Your task to perform on an android device: change the clock style Image 0: 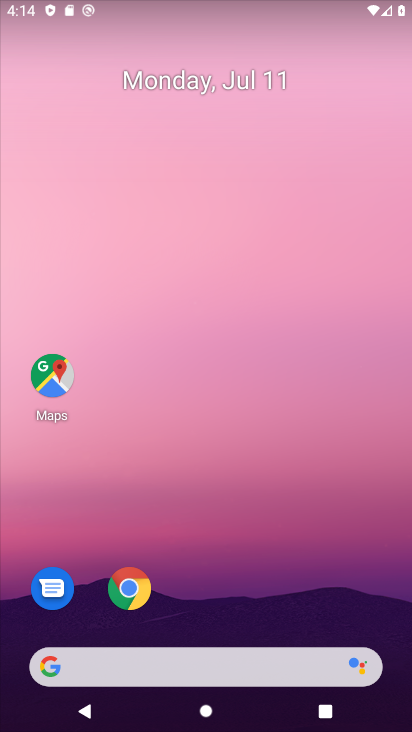
Step 0: drag from (258, 674) to (200, 97)
Your task to perform on an android device: change the clock style Image 1: 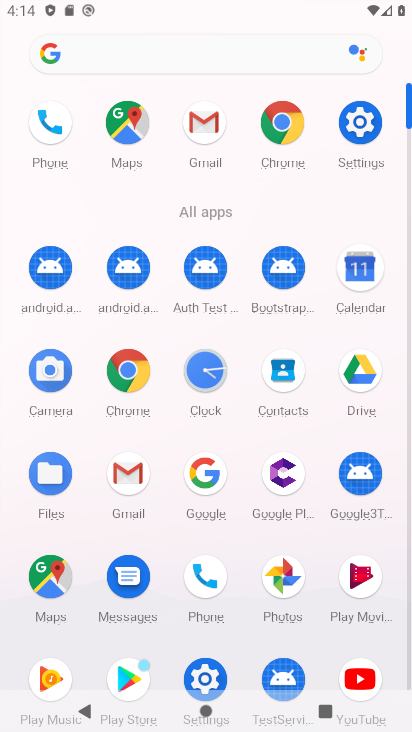
Step 1: click (197, 372)
Your task to perform on an android device: change the clock style Image 2: 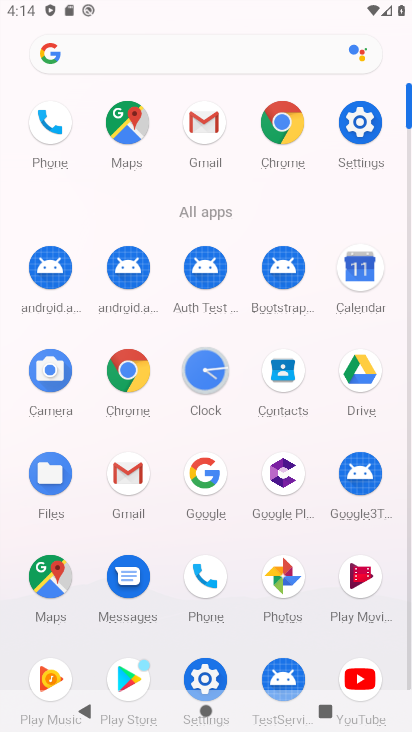
Step 2: click (198, 367)
Your task to perform on an android device: change the clock style Image 3: 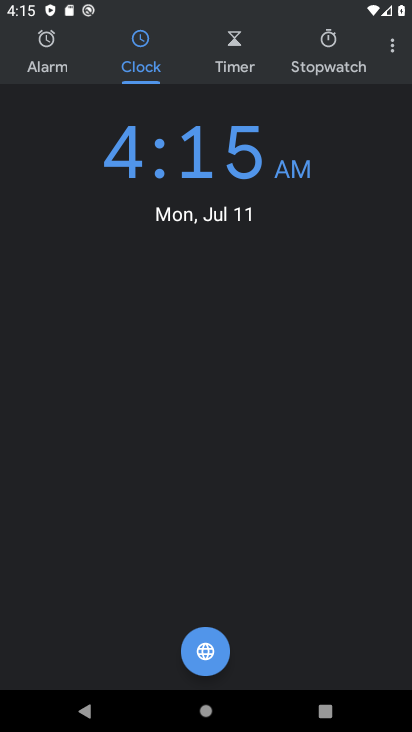
Step 3: click (399, 45)
Your task to perform on an android device: change the clock style Image 4: 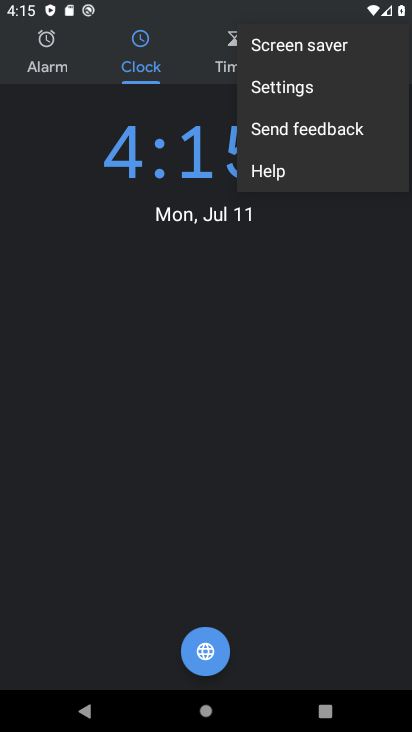
Step 4: click (394, 52)
Your task to perform on an android device: change the clock style Image 5: 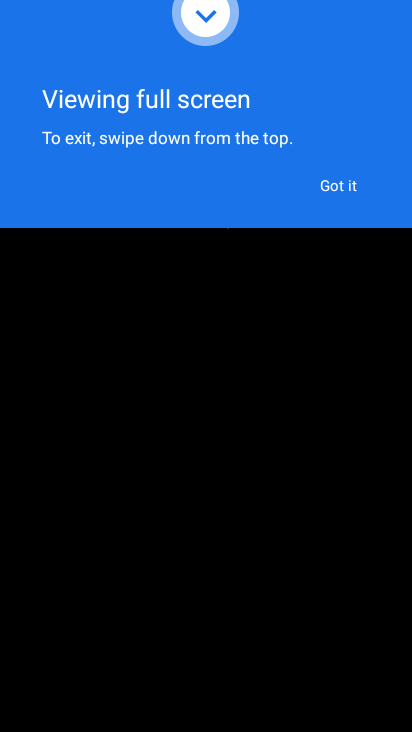
Step 5: click (335, 181)
Your task to perform on an android device: change the clock style Image 6: 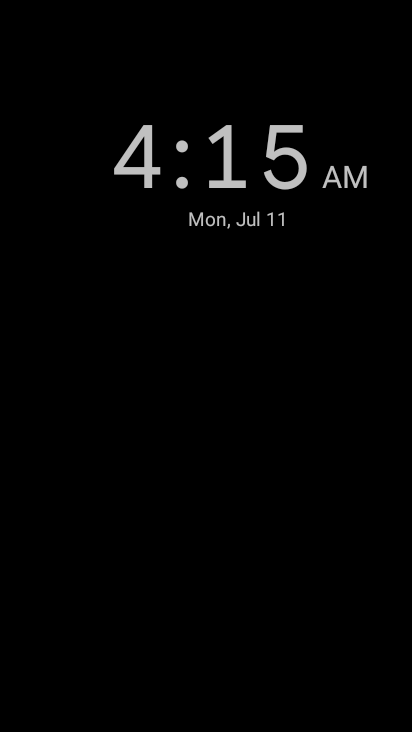
Step 6: press back button
Your task to perform on an android device: change the clock style Image 7: 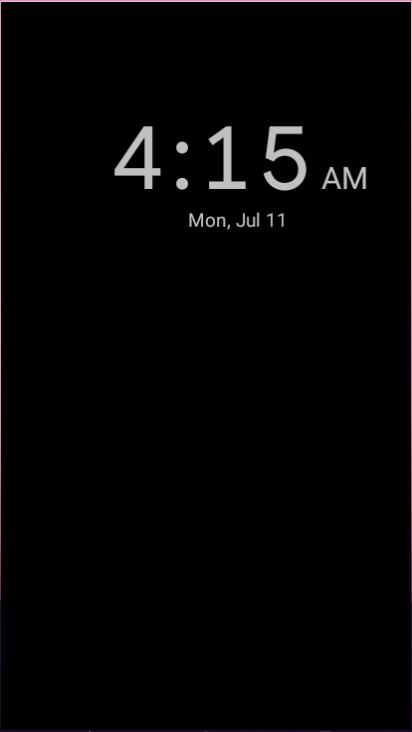
Step 7: press back button
Your task to perform on an android device: change the clock style Image 8: 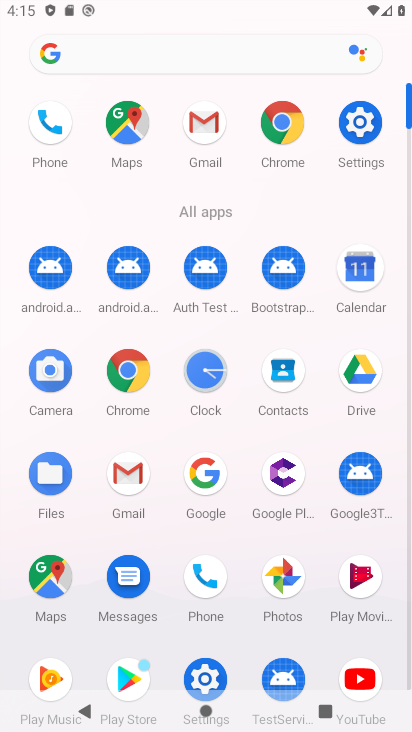
Step 8: click (205, 380)
Your task to perform on an android device: change the clock style Image 9: 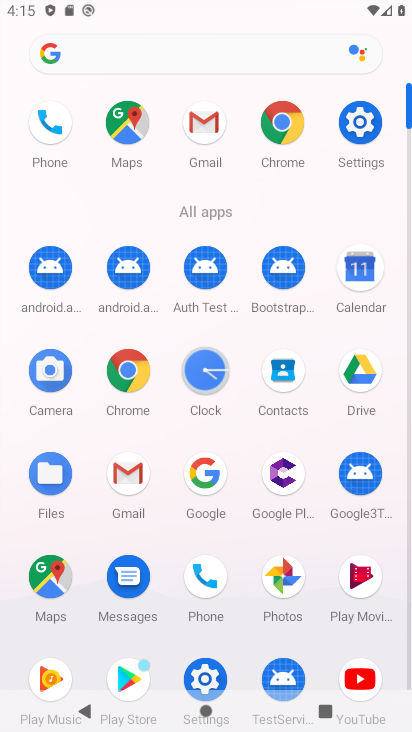
Step 9: click (205, 380)
Your task to perform on an android device: change the clock style Image 10: 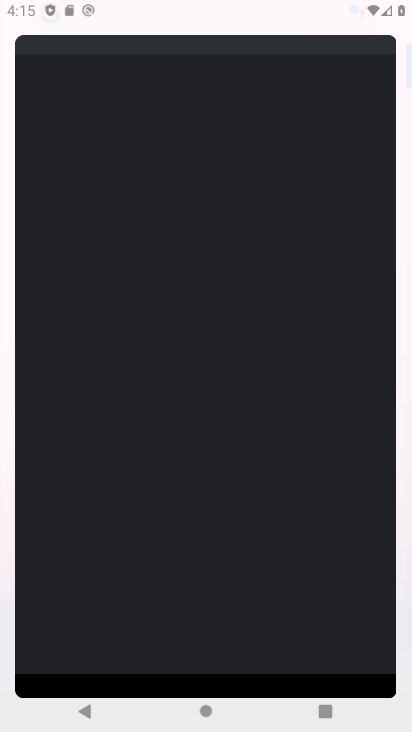
Step 10: click (207, 379)
Your task to perform on an android device: change the clock style Image 11: 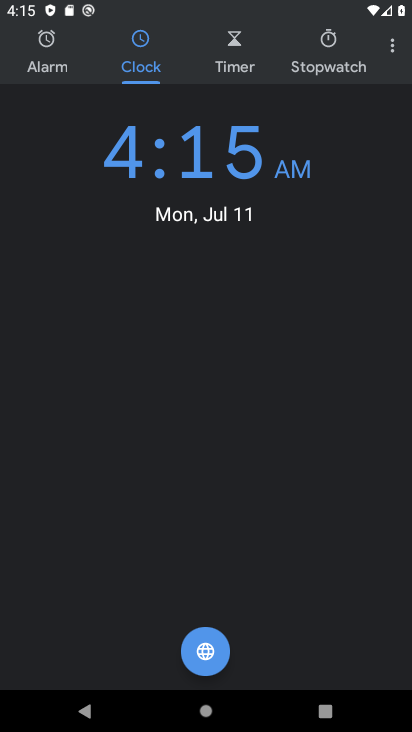
Step 11: click (390, 42)
Your task to perform on an android device: change the clock style Image 12: 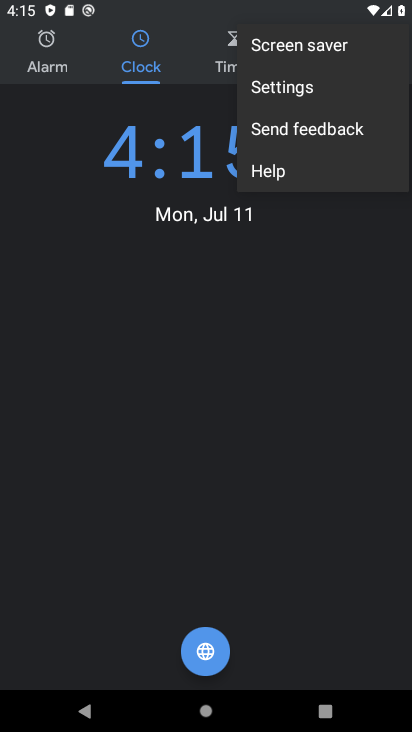
Step 12: click (300, 86)
Your task to perform on an android device: change the clock style Image 13: 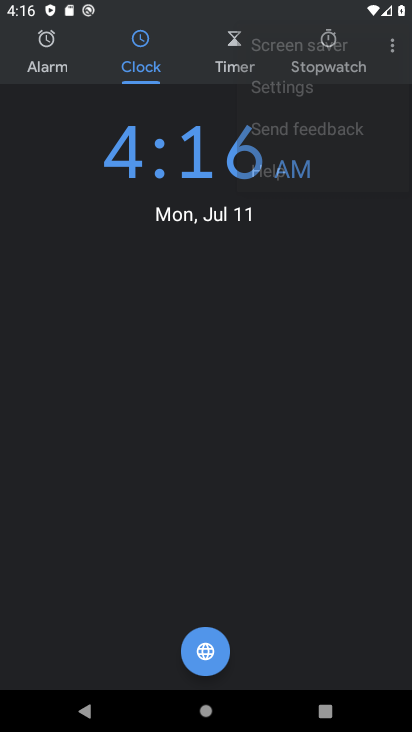
Step 13: click (300, 88)
Your task to perform on an android device: change the clock style Image 14: 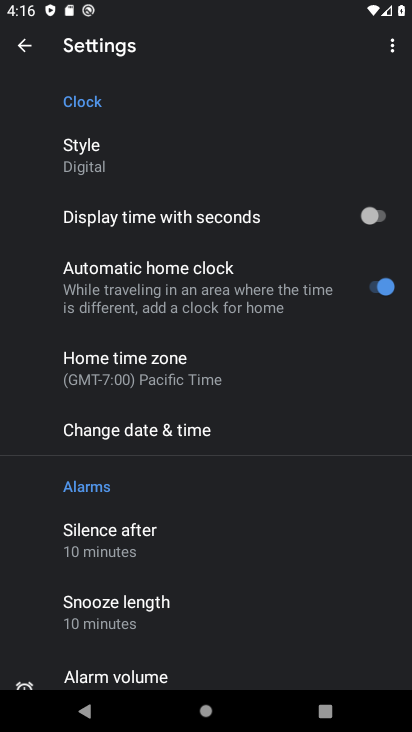
Step 14: click (122, 166)
Your task to perform on an android device: change the clock style Image 15: 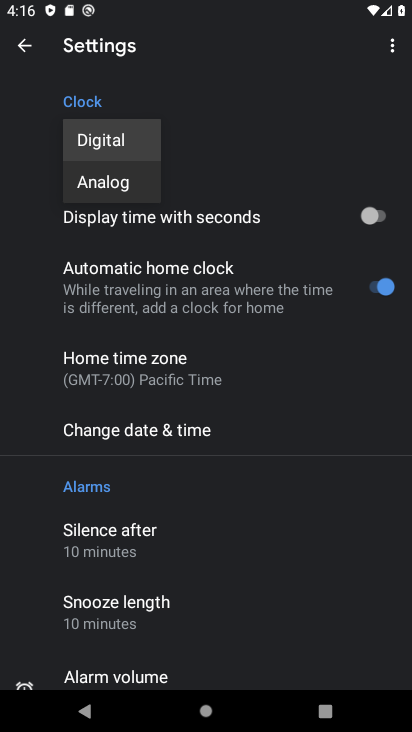
Step 15: click (117, 182)
Your task to perform on an android device: change the clock style Image 16: 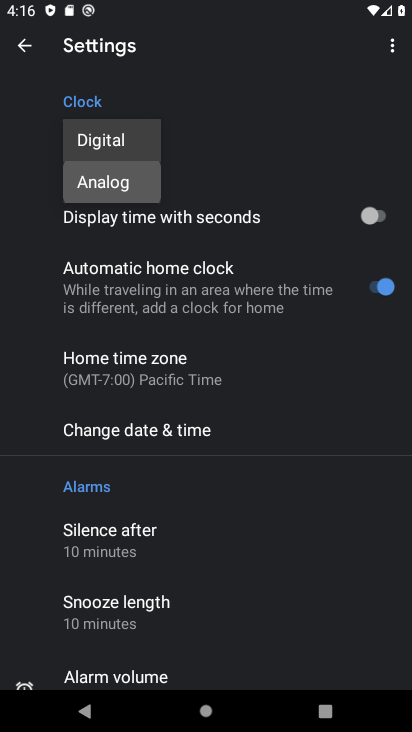
Step 16: click (117, 182)
Your task to perform on an android device: change the clock style Image 17: 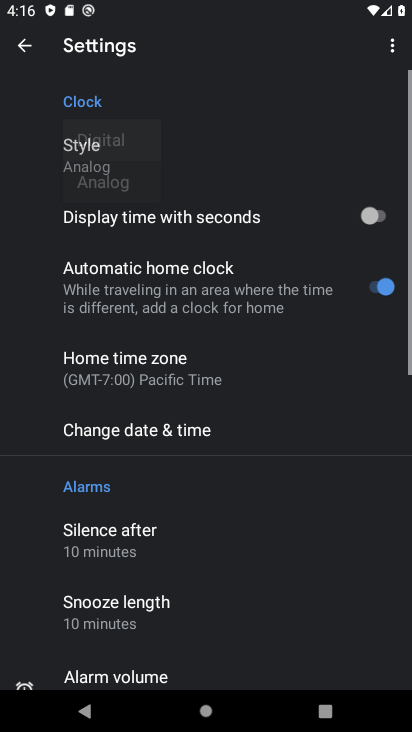
Step 17: click (117, 181)
Your task to perform on an android device: change the clock style Image 18: 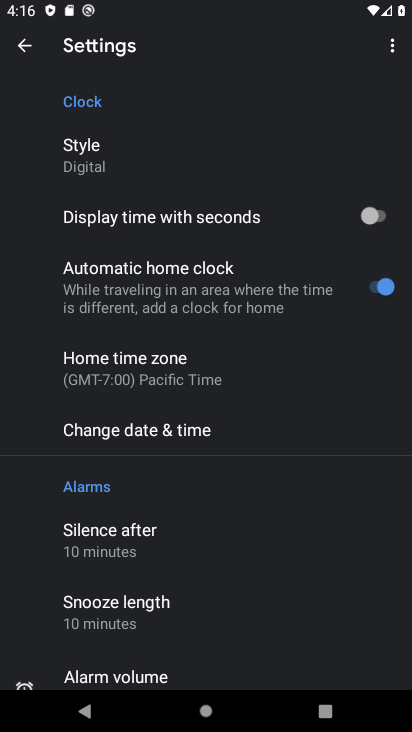
Step 18: task complete